Your task to perform on an android device: set an alarm Image 0: 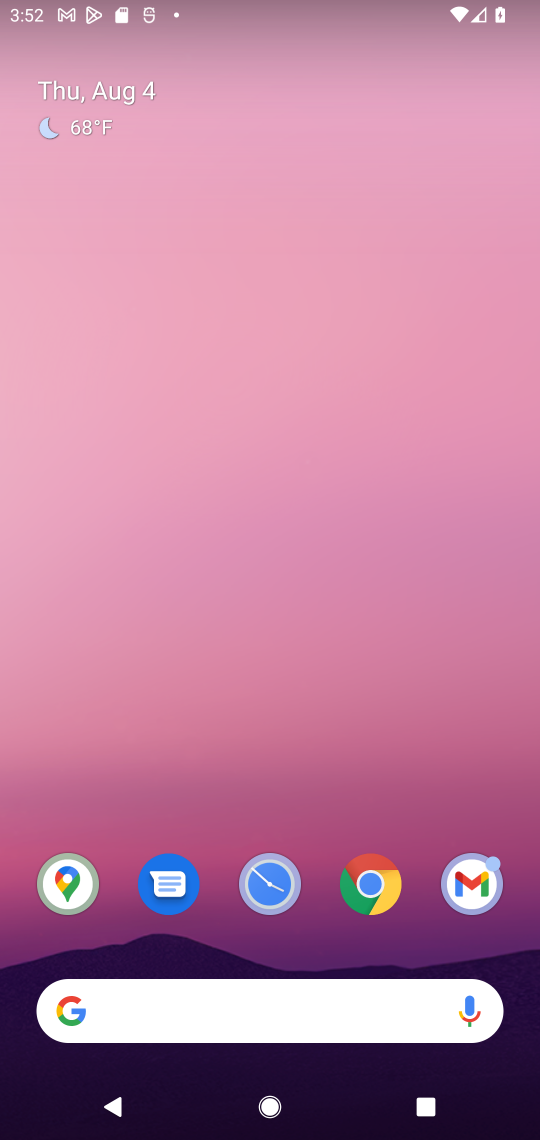
Step 0: drag from (322, 957) to (290, 166)
Your task to perform on an android device: set an alarm Image 1: 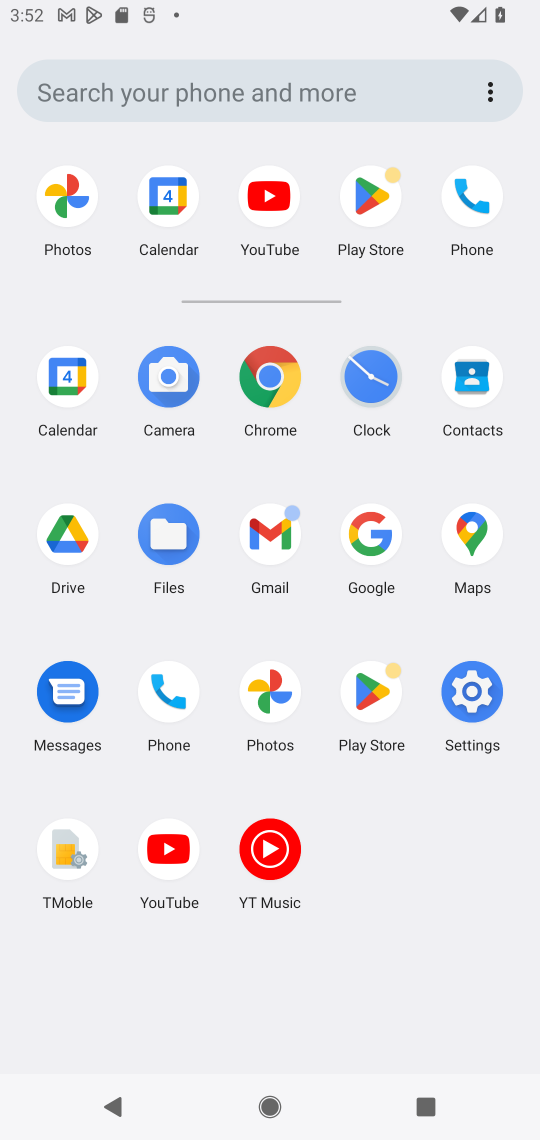
Step 1: click (363, 415)
Your task to perform on an android device: set an alarm Image 2: 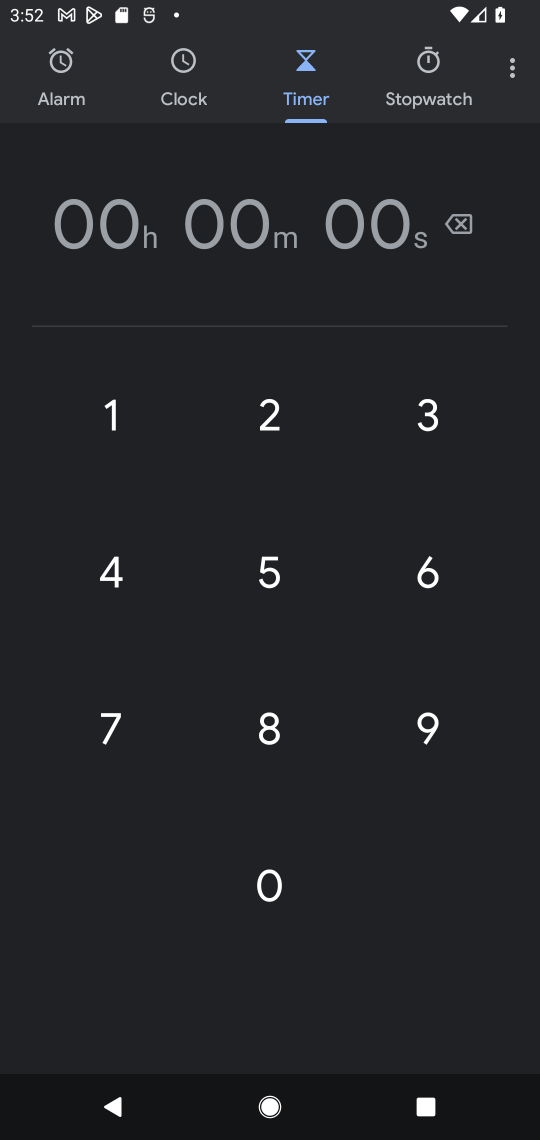
Step 2: click (94, 101)
Your task to perform on an android device: set an alarm Image 3: 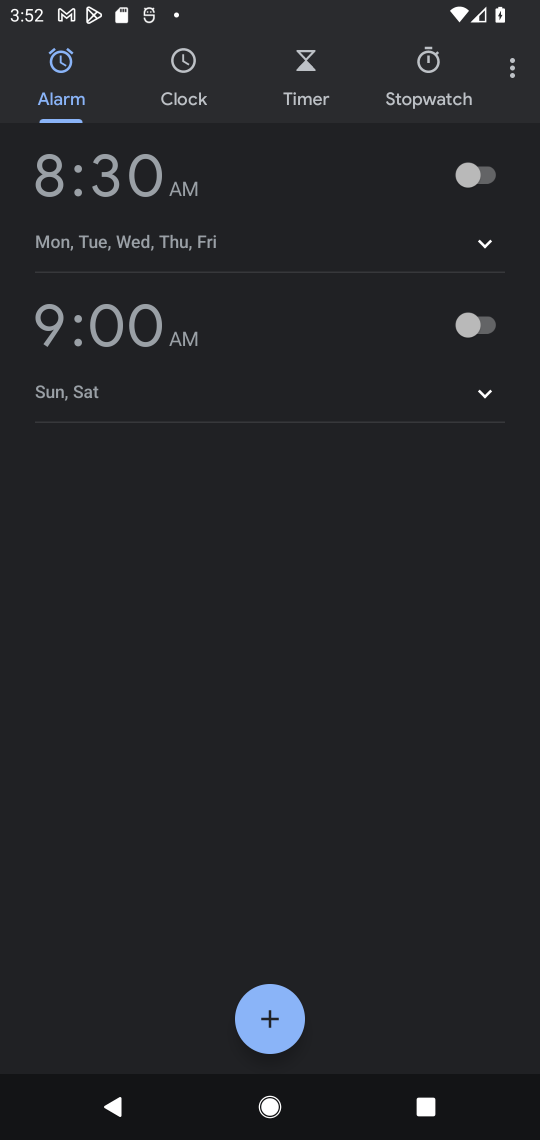
Step 3: click (460, 172)
Your task to perform on an android device: set an alarm Image 4: 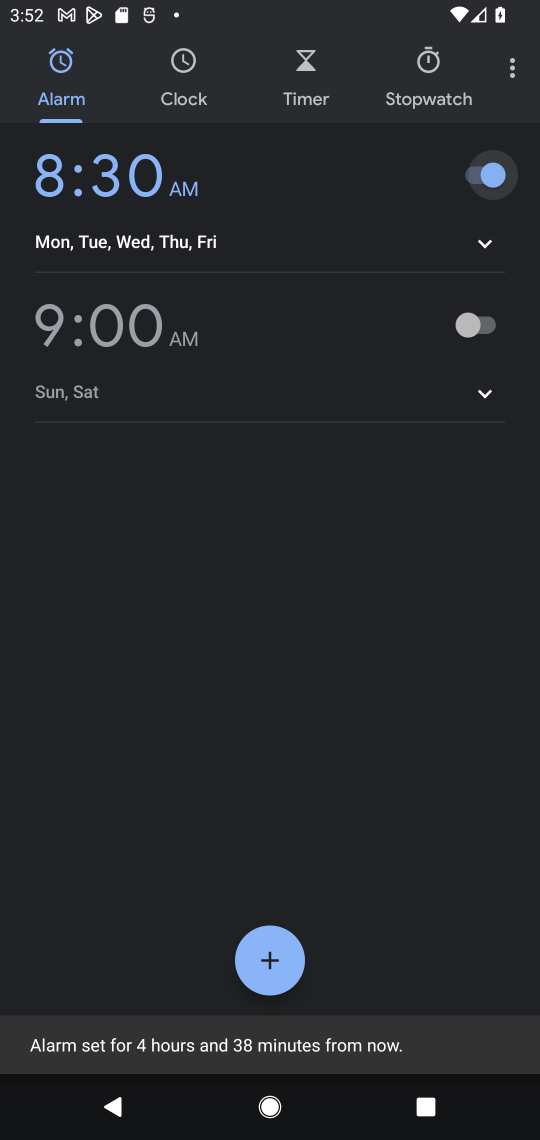
Step 4: task complete